Your task to perform on an android device: check google app version Image 0: 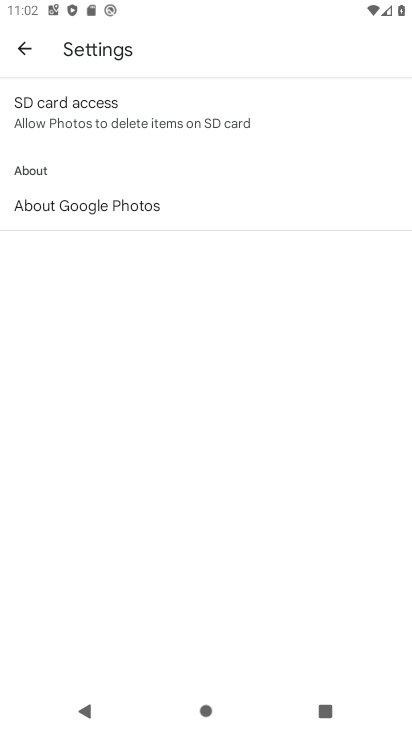
Step 0: press back button
Your task to perform on an android device: check google app version Image 1: 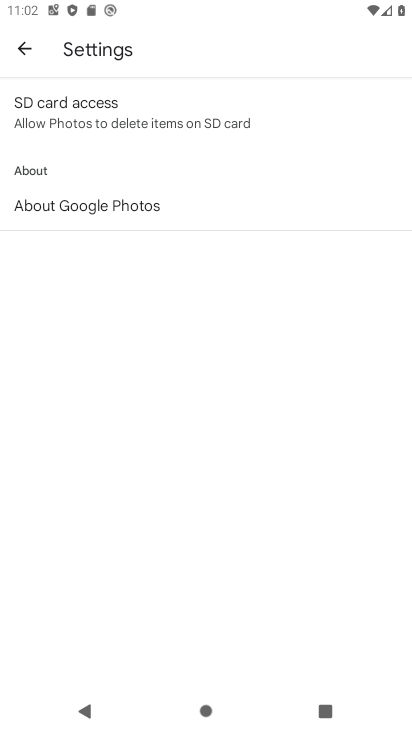
Step 1: press back button
Your task to perform on an android device: check google app version Image 2: 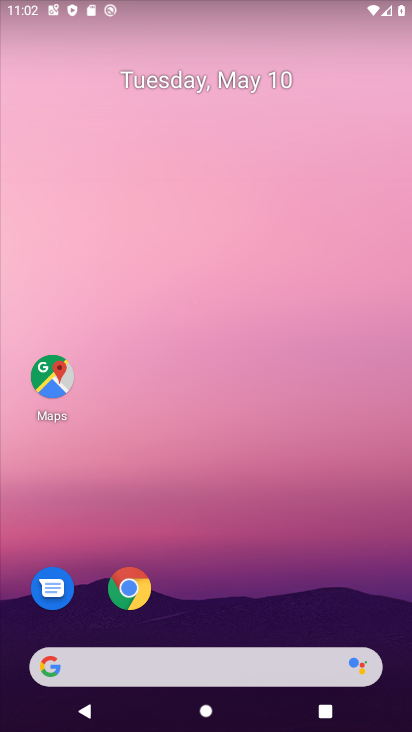
Step 2: drag from (272, 693) to (222, 155)
Your task to perform on an android device: check google app version Image 3: 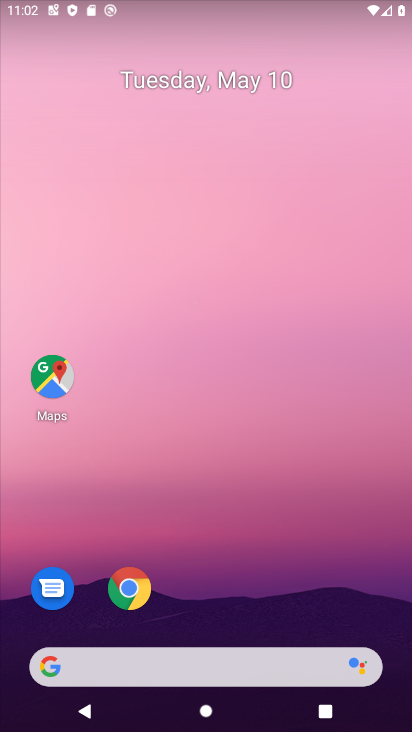
Step 3: drag from (287, 610) to (146, 53)
Your task to perform on an android device: check google app version Image 4: 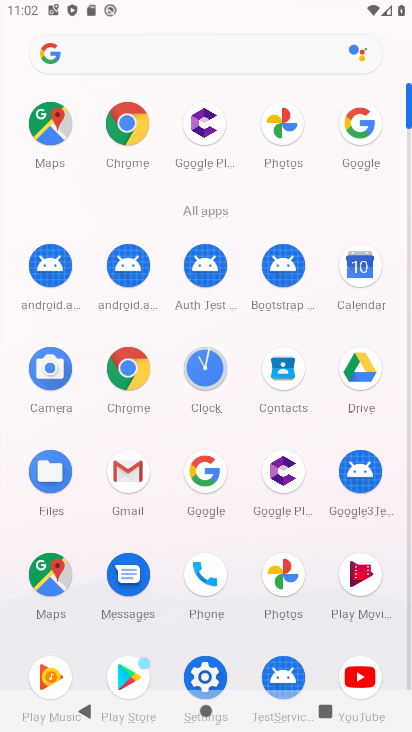
Step 4: click (195, 470)
Your task to perform on an android device: check google app version Image 5: 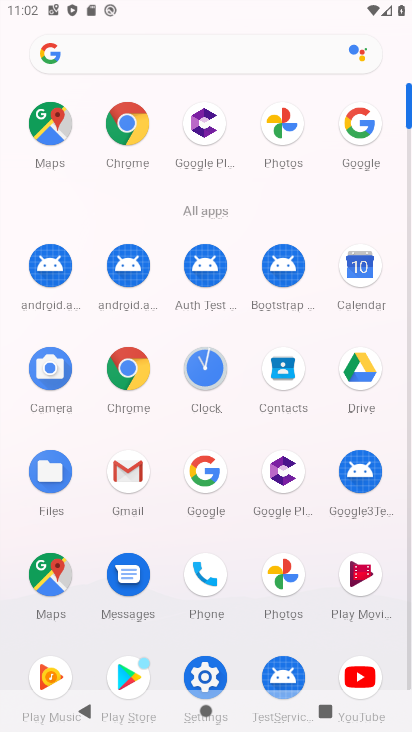
Step 5: click (195, 470)
Your task to perform on an android device: check google app version Image 6: 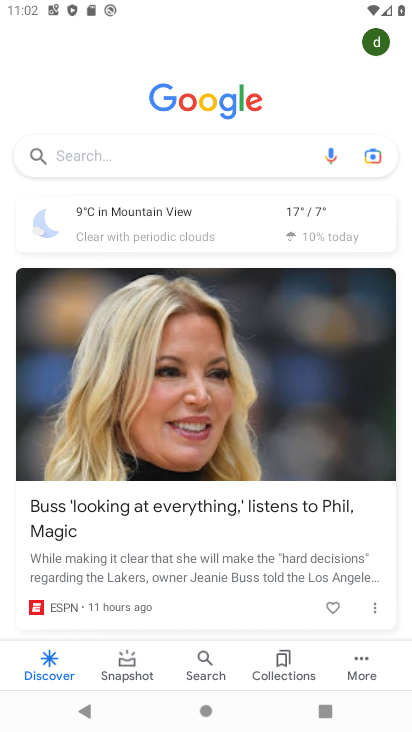
Step 6: click (362, 665)
Your task to perform on an android device: check google app version Image 7: 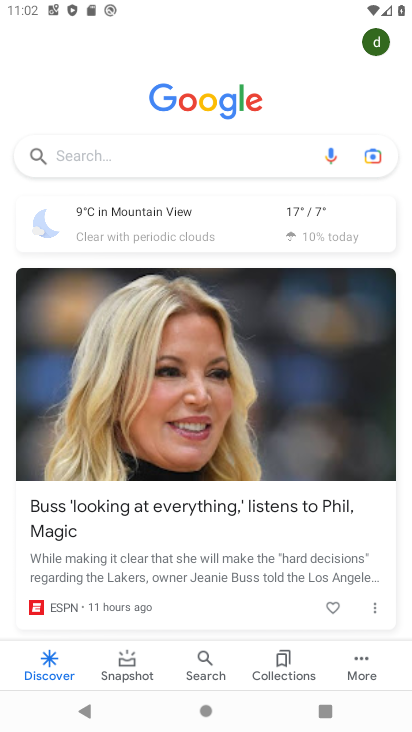
Step 7: click (363, 664)
Your task to perform on an android device: check google app version Image 8: 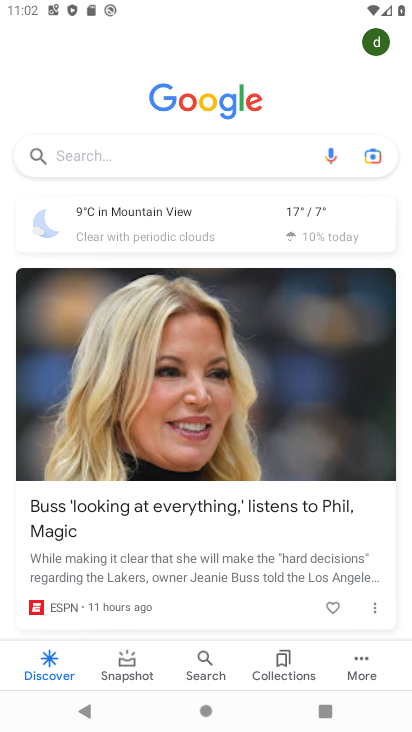
Step 8: click (363, 664)
Your task to perform on an android device: check google app version Image 9: 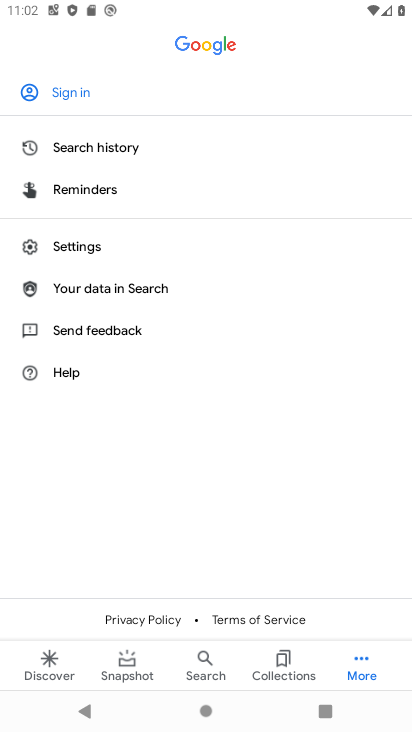
Step 9: click (363, 664)
Your task to perform on an android device: check google app version Image 10: 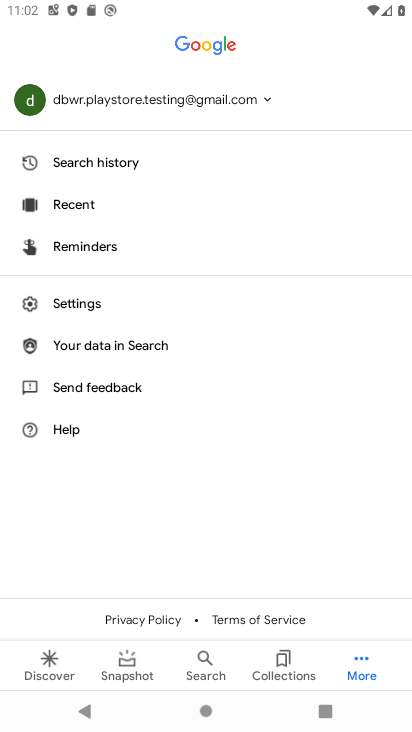
Step 10: click (75, 308)
Your task to perform on an android device: check google app version Image 11: 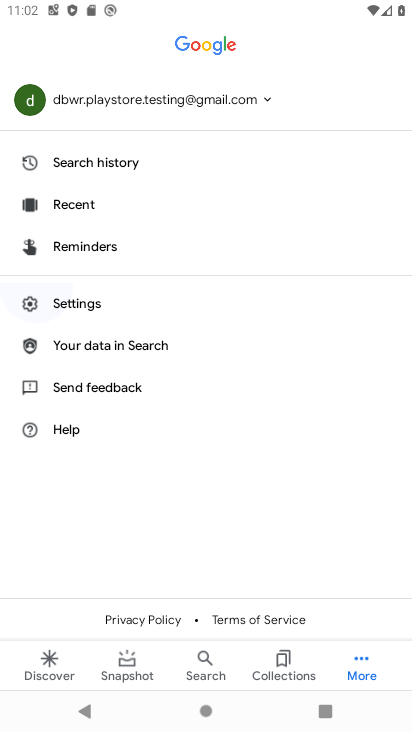
Step 11: click (75, 308)
Your task to perform on an android device: check google app version Image 12: 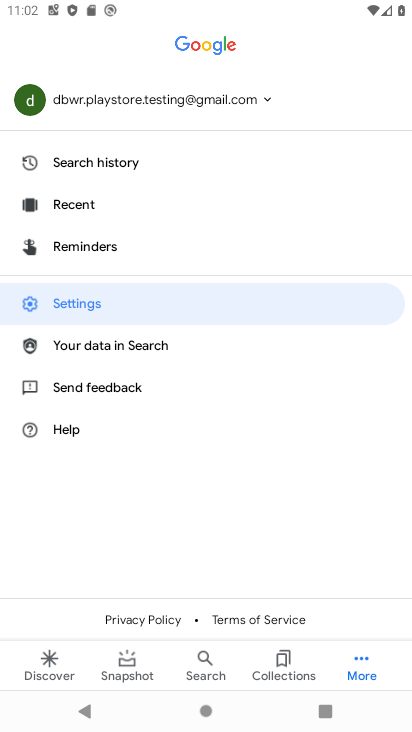
Step 12: click (75, 308)
Your task to perform on an android device: check google app version Image 13: 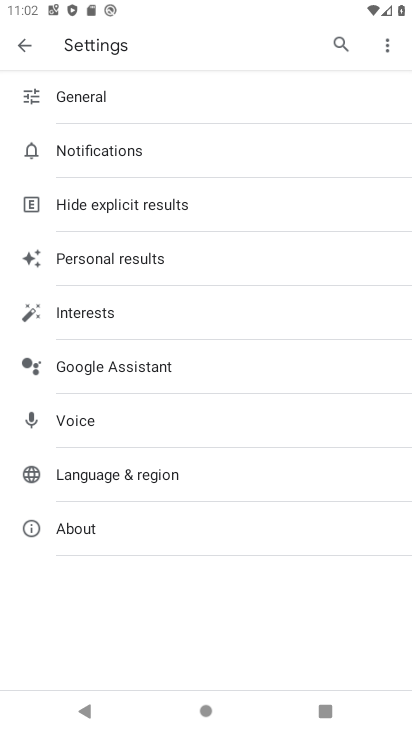
Step 13: click (80, 523)
Your task to perform on an android device: check google app version Image 14: 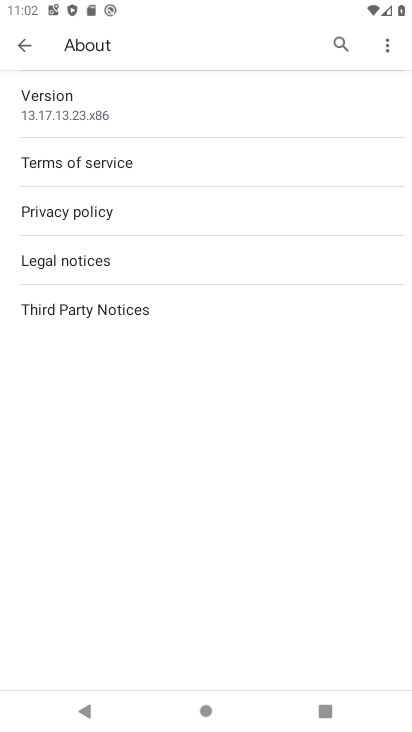
Step 14: task complete